Your task to perform on an android device: turn on javascript in the chrome app Image 0: 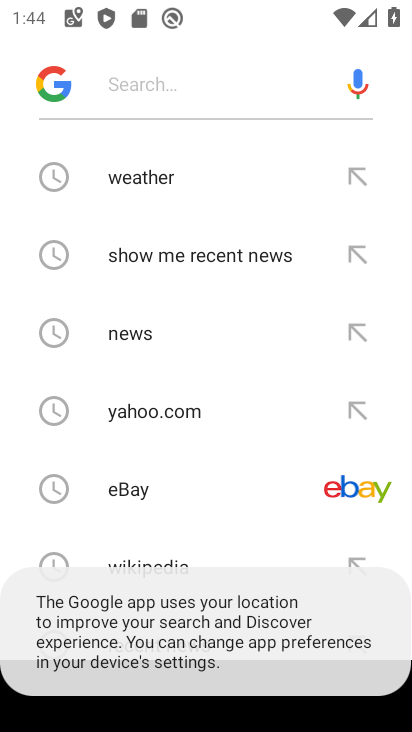
Step 0: press home button
Your task to perform on an android device: turn on javascript in the chrome app Image 1: 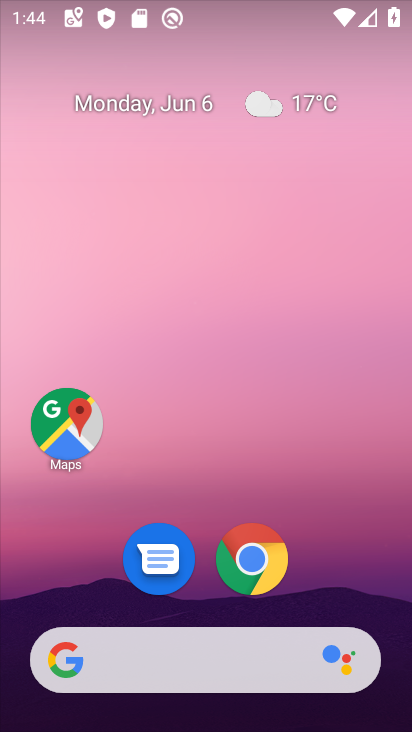
Step 1: click (263, 555)
Your task to perform on an android device: turn on javascript in the chrome app Image 2: 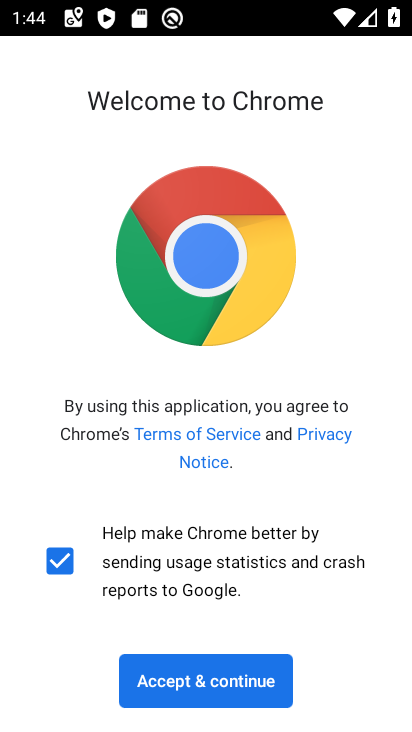
Step 2: click (249, 684)
Your task to perform on an android device: turn on javascript in the chrome app Image 3: 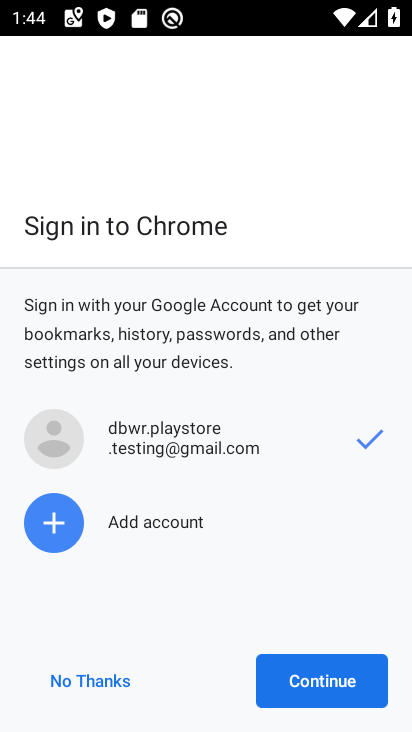
Step 3: click (322, 693)
Your task to perform on an android device: turn on javascript in the chrome app Image 4: 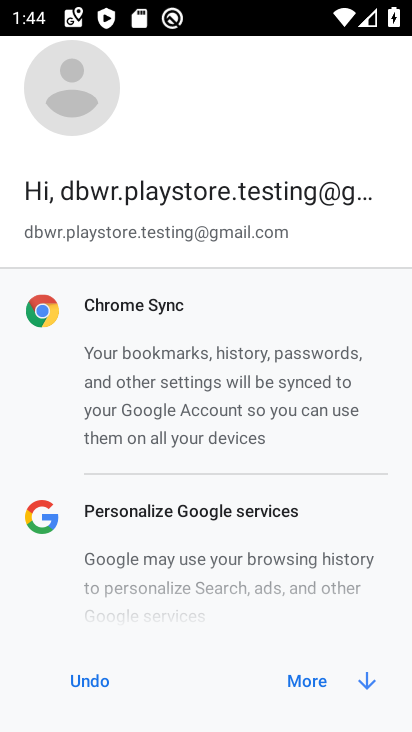
Step 4: click (323, 692)
Your task to perform on an android device: turn on javascript in the chrome app Image 5: 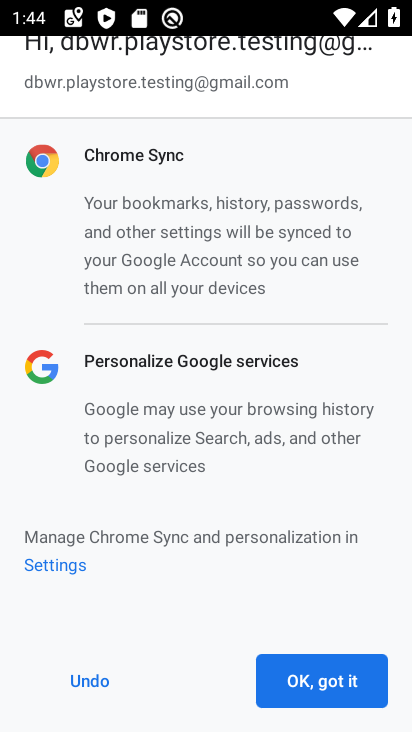
Step 5: click (344, 683)
Your task to perform on an android device: turn on javascript in the chrome app Image 6: 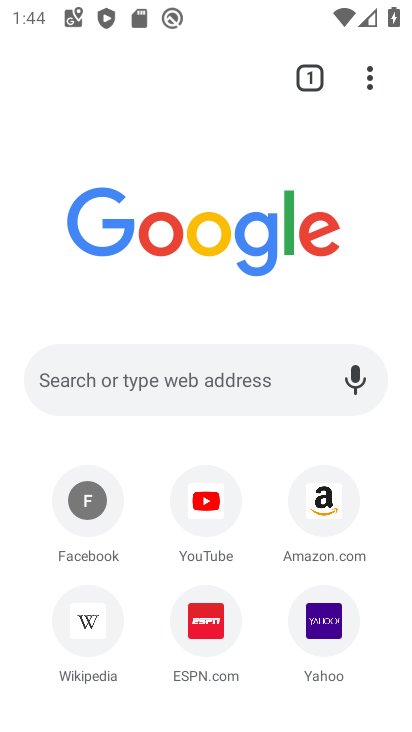
Step 6: drag from (392, 79) to (198, 627)
Your task to perform on an android device: turn on javascript in the chrome app Image 7: 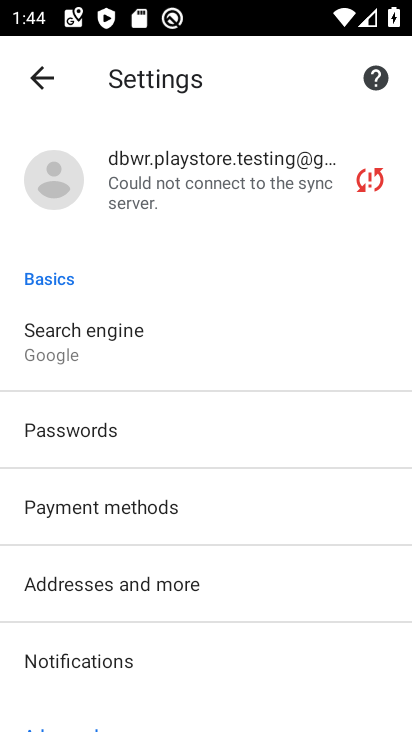
Step 7: drag from (196, 639) to (289, 275)
Your task to perform on an android device: turn on javascript in the chrome app Image 8: 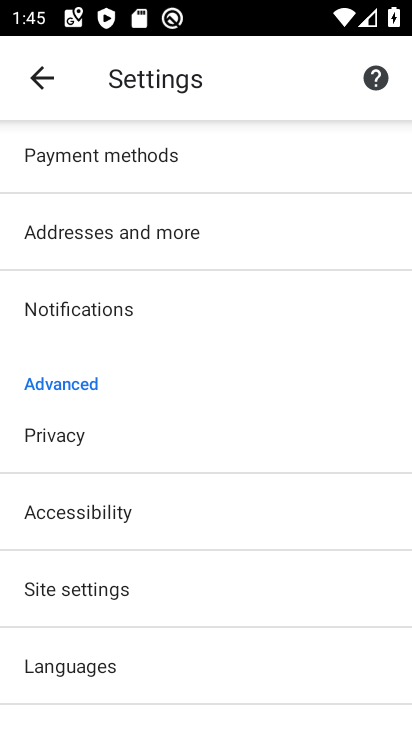
Step 8: drag from (179, 624) to (278, 328)
Your task to perform on an android device: turn on javascript in the chrome app Image 9: 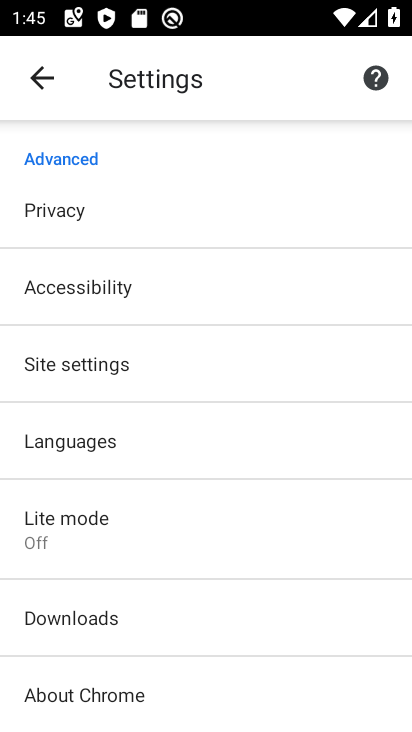
Step 9: drag from (250, 328) to (344, 206)
Your task to perform on an android device: turn on javascript in the chrome app Image 10: 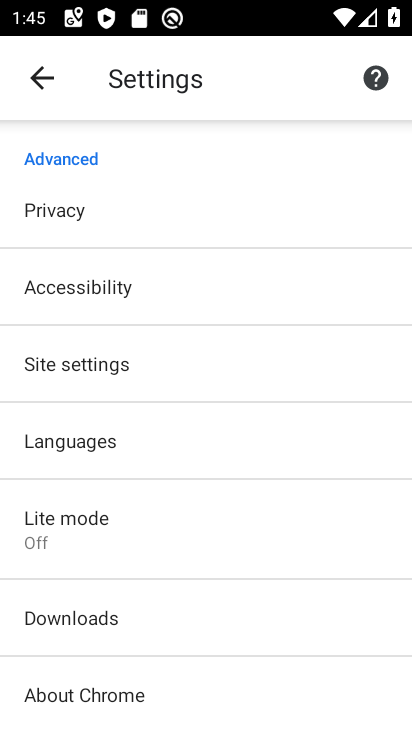
Step 10: click (154, 362)
Your task to perform on an android device: turn on javascript in the chrome app Image 11: 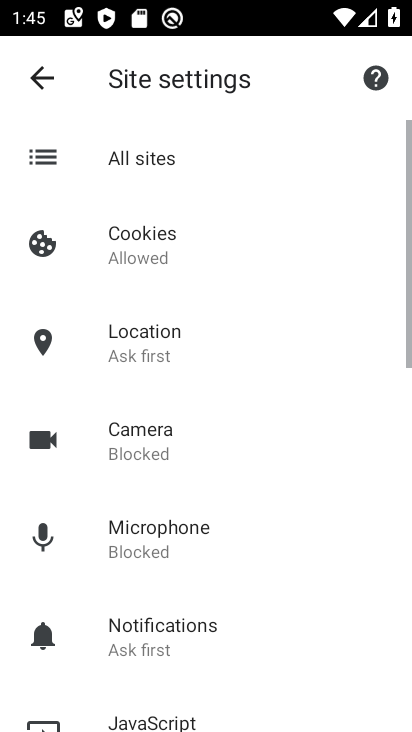
Step 11: drag from (216, 615) to (280, 328)
Your task to perform on an android device: turn on javascript in the chrome app Image 12: 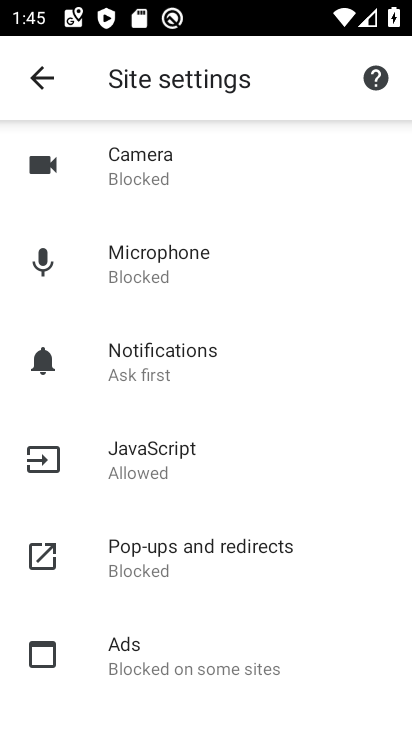
Step 12: click (187, 478)
Your task to perform on an android device: turn on javascript in the chrome app Image 13: 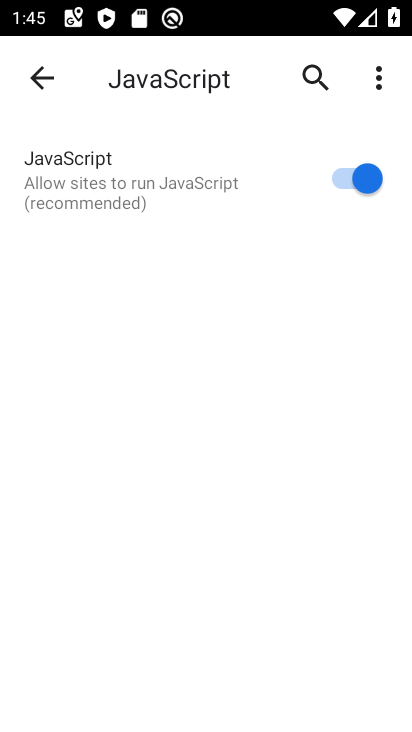
Step 13: task complete